Your task to perform on an android device: What is the news today? Image 0: 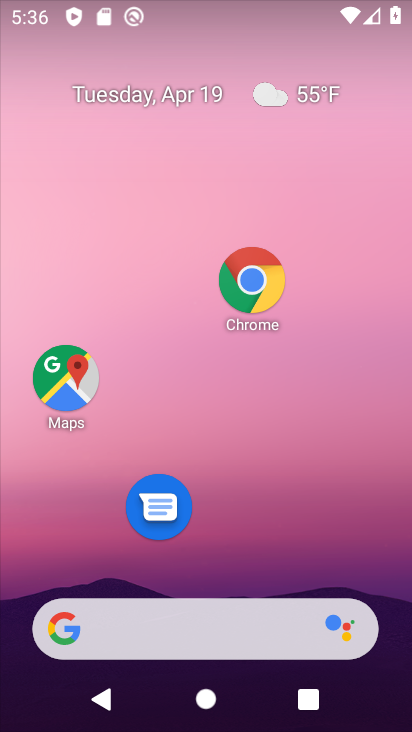
Step 0: drag from (211, 589) to (196, 255)
Your task to perform on an android device: What is the news today? Image 1: 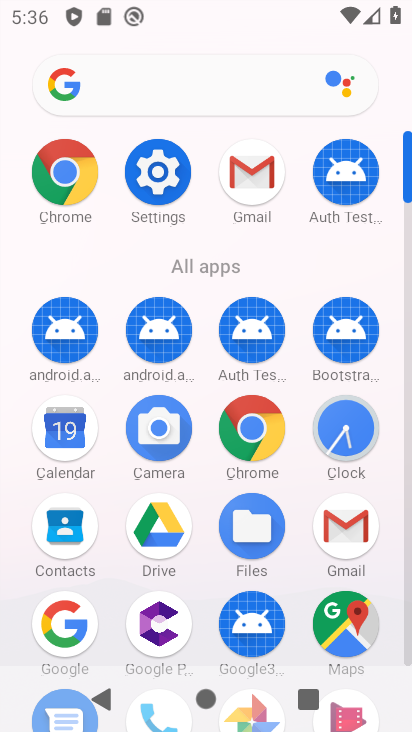
Step 1: click (61, 628)
Your task to perform on an android device: What is the news today? Image 2: 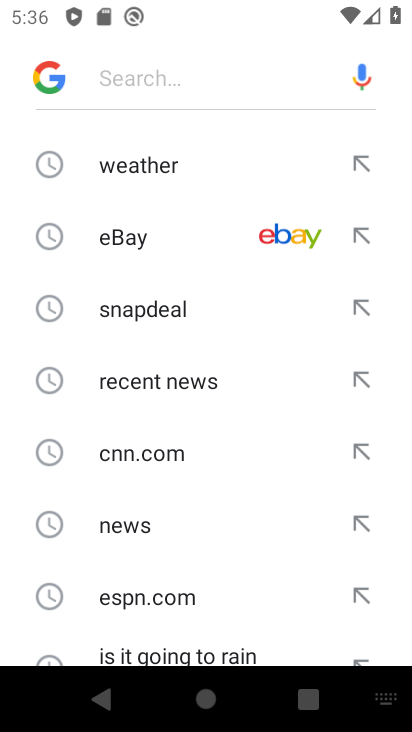
Step 2: click (108, 520)
Your task to perform on an android device: What is the news today? Image 3: 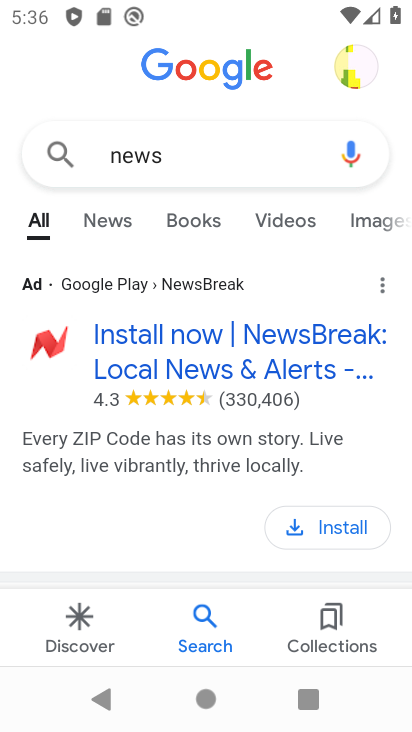
Step 3: task complete